Your task to perform on an android device: Open Youtube and go to "Your channel" Image 0: 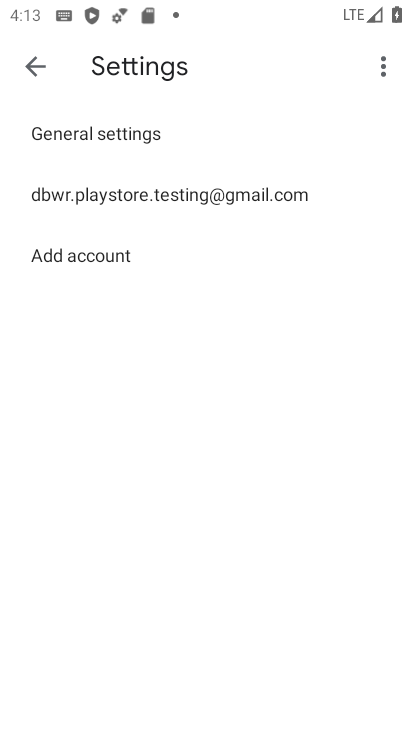
Step 0: press home button
Your task to perform on an android device: Open Youtube and go to "Your channel" Image 1: 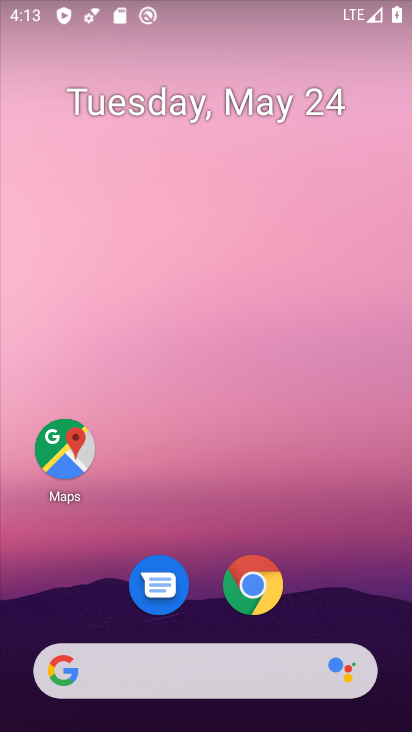
Step 1: drag from (251, 493) to (290, 4)
Your task to perform on an android device: Open Youtube and go to "Your channel" Image 2: 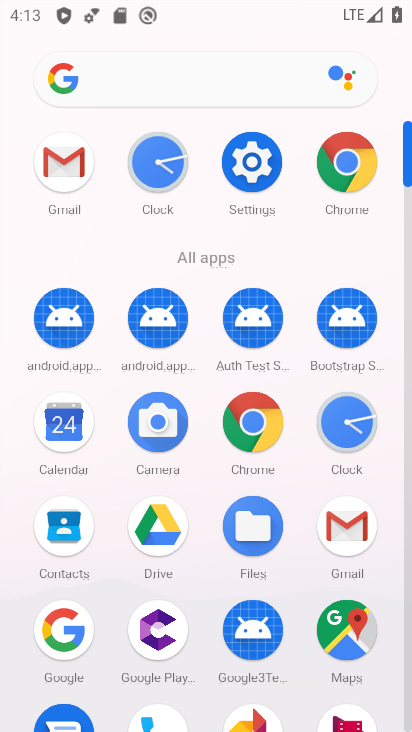
Step 2: drag from (327, 455) to (341, 14)
Your task to perform on an android device: Open Youtube and go to "Your channel" Image 3: 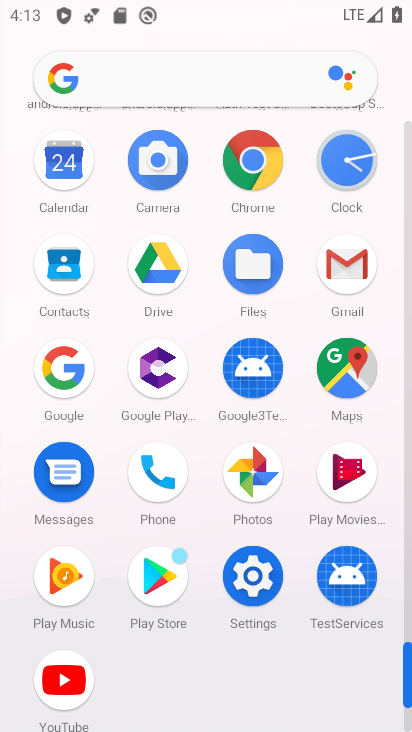
Step 3: click (60, 680)
Your task to perform on an android device: Open Youtube and go to "Your channel" Image 4: 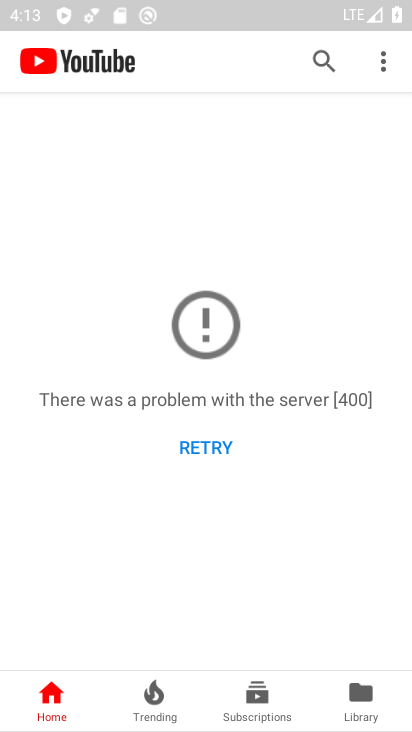
Step 4: click (209, 436)
Your task to perform on an android device: Open Youtube and go to "Your channel" Image 5: 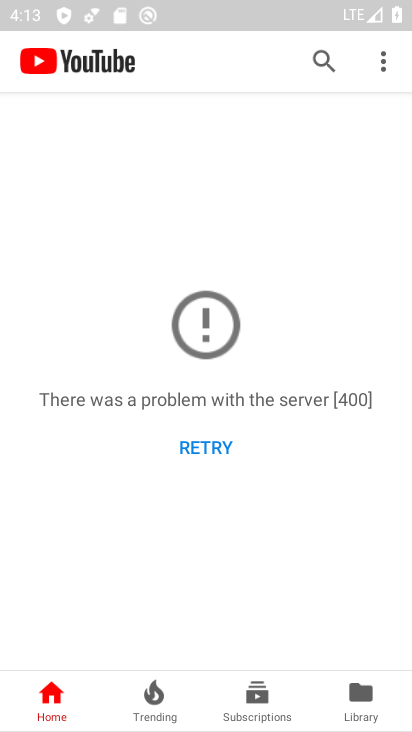
Step 5: click (209, 438)
Your task to perform on an android device: Open Youtube and go to "Your channel" Image 6: 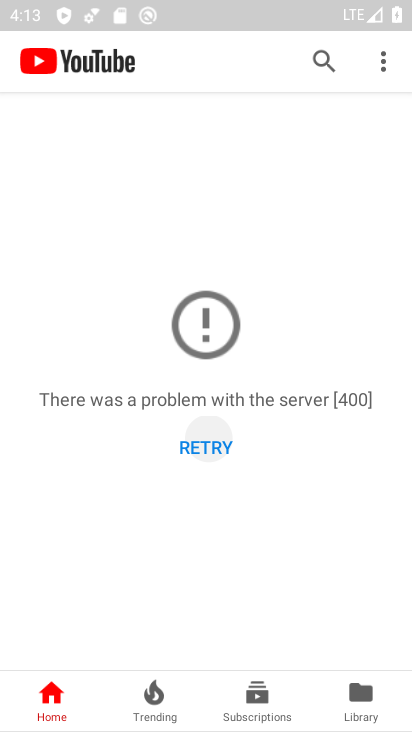
Step 6: click (209, 438)
Your task to perform on an android device: Open Youtube and go to "Your channel" Image 7: 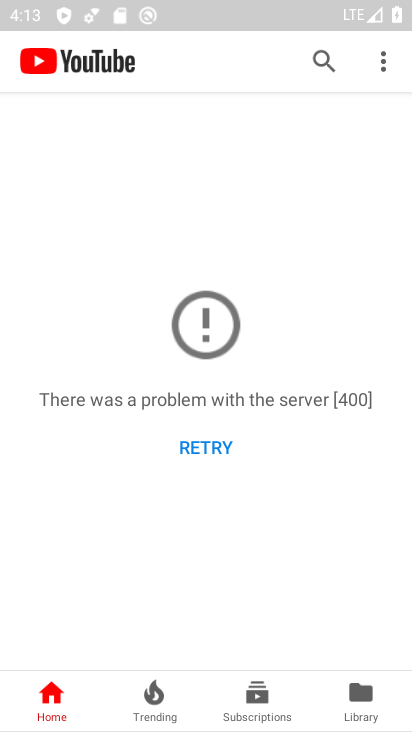
Step 7: click (260, 684)
Your task to perform on an android device: Open Youtube and go to "Your channel" Image 8: 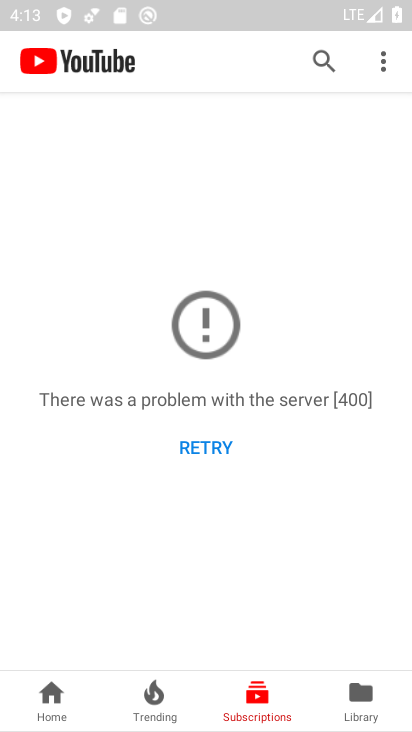
Step 8: task complete